Your task to perform on an android device: toggle data saver in the chrome app Image 0: 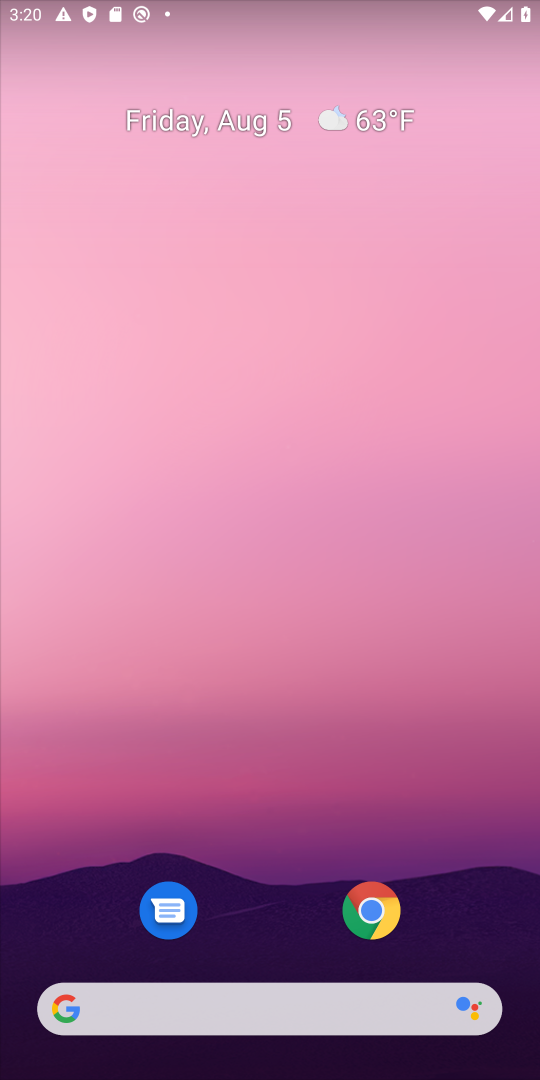
Step 0: click (394, 910)
Your task to perform on an android device: toggle data saver in the chrome app Image 1: 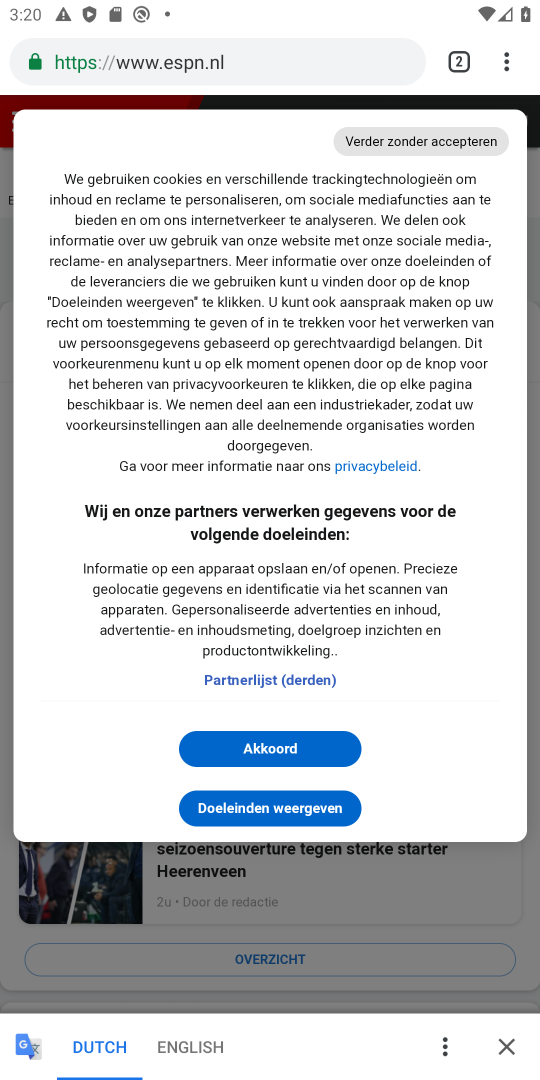
Step 1: click (507, 67)
Your task to perform on an android device: toggle data saver in the chrome app Image 2: 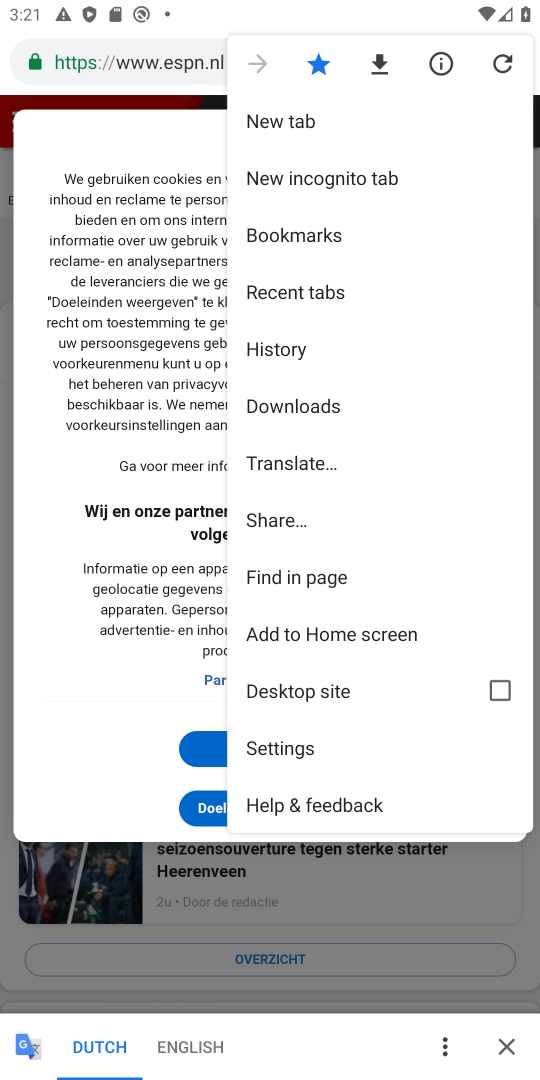
Step 2: click (287, 735)
Your task to perform on an android device: toggle data saver in the chrome app Image 3: 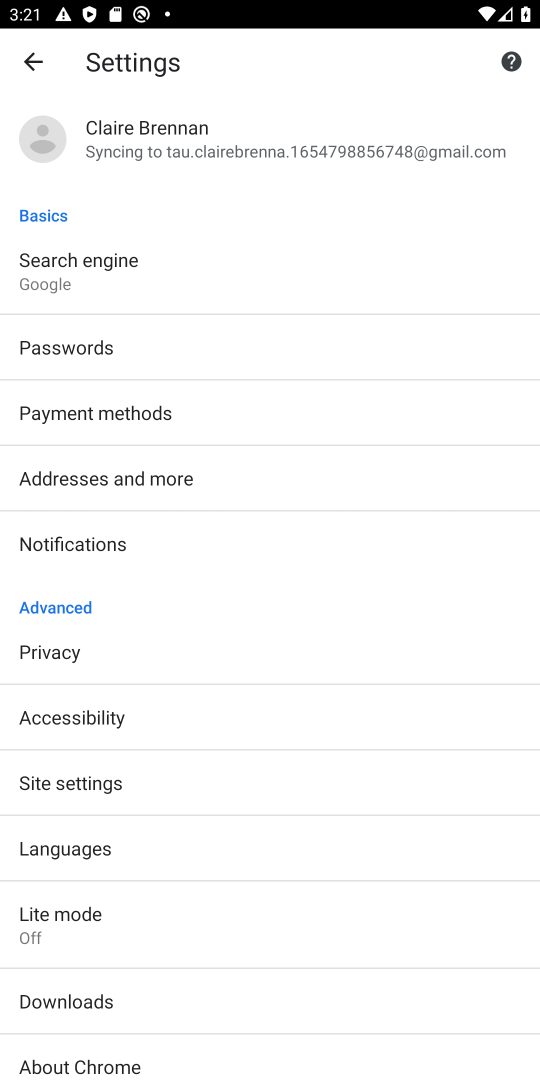
Step 3: click (216, 925)
Your task to perform on an android device: toggle data saver in the chrome app Image 4: 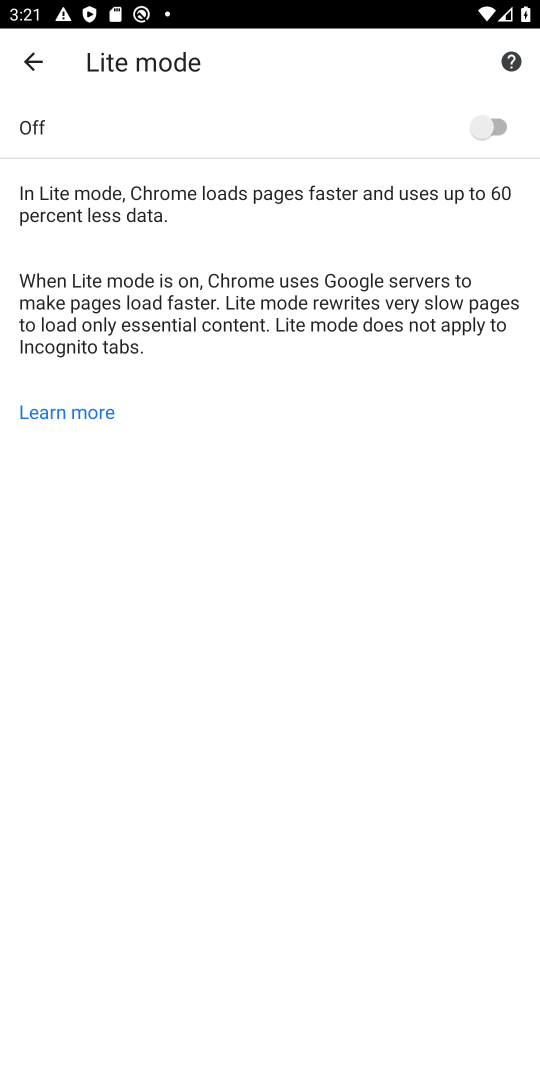
Step 4: click (510, 153)
Your task to perform on an android device: toggle data saver in the chrome app Image 5: 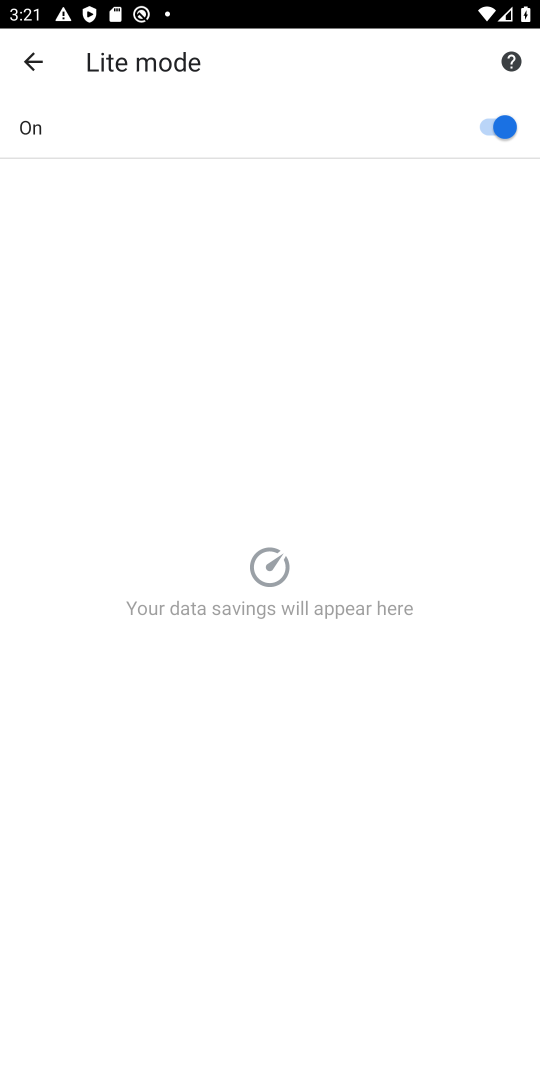
Step 5: task complete